Your task to perform on an android device: change the clock display to digital Image 0: 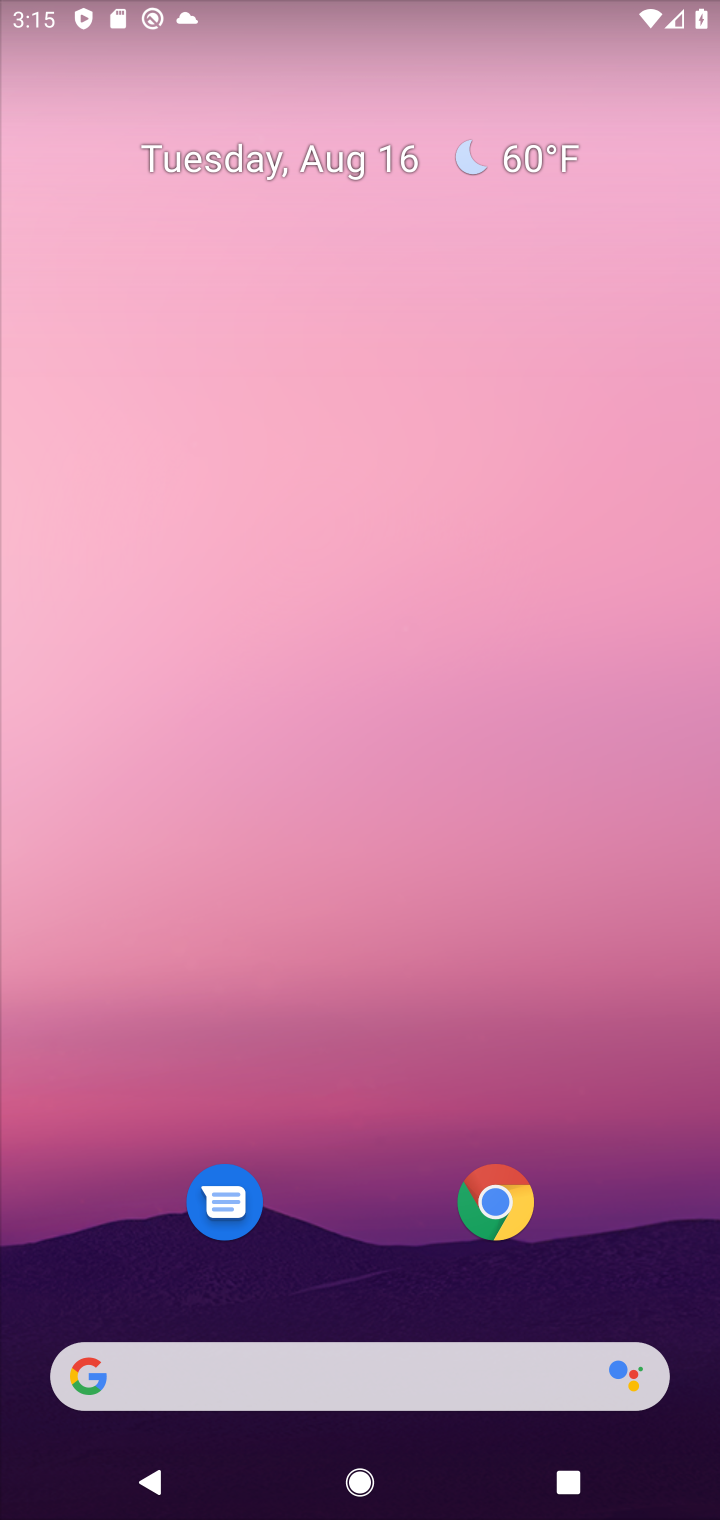
Step 0: press home button
Your task to perform on an android device: change the clock display to digital Image 1: 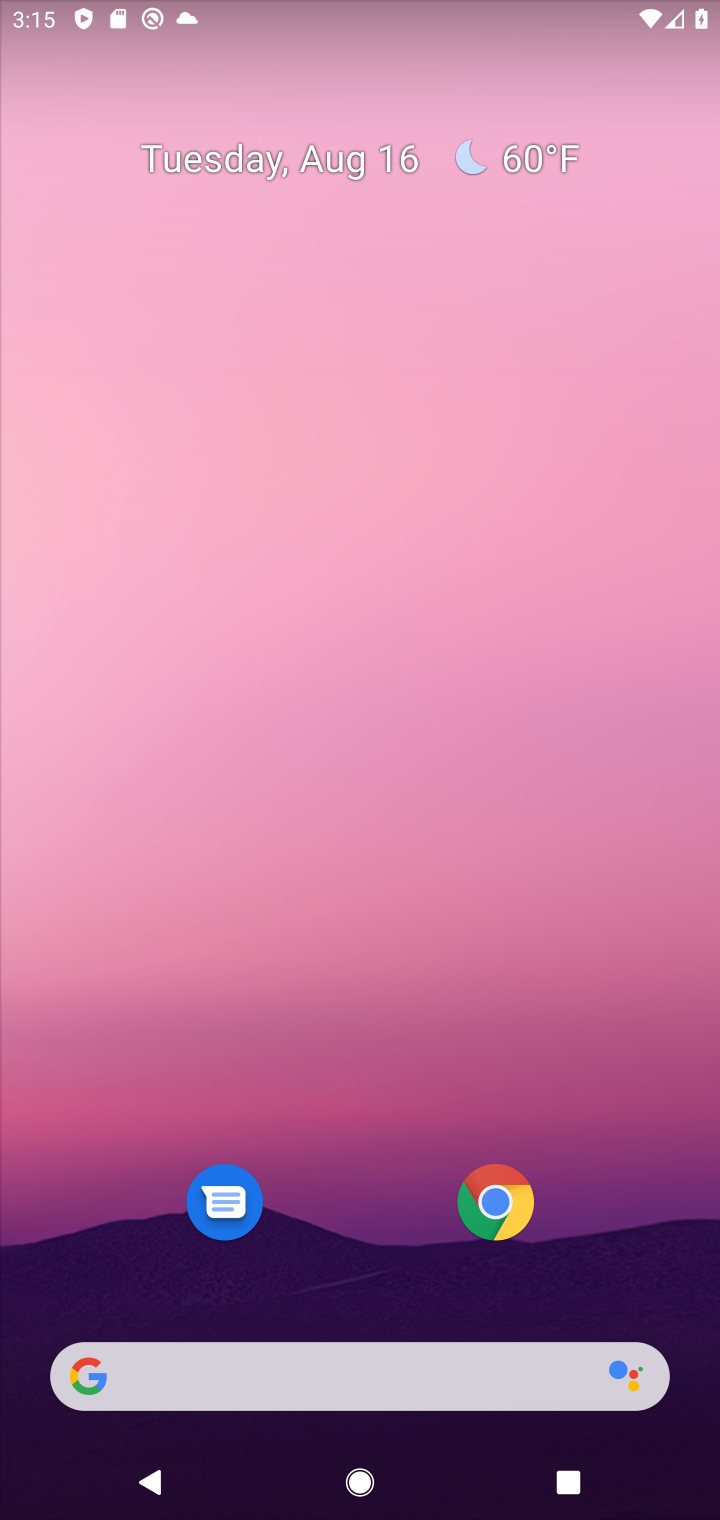
Step 1: drag from (369, 1159) to (417, 139)
Your task to perform on an android device: change the clock display to digital Image 2: 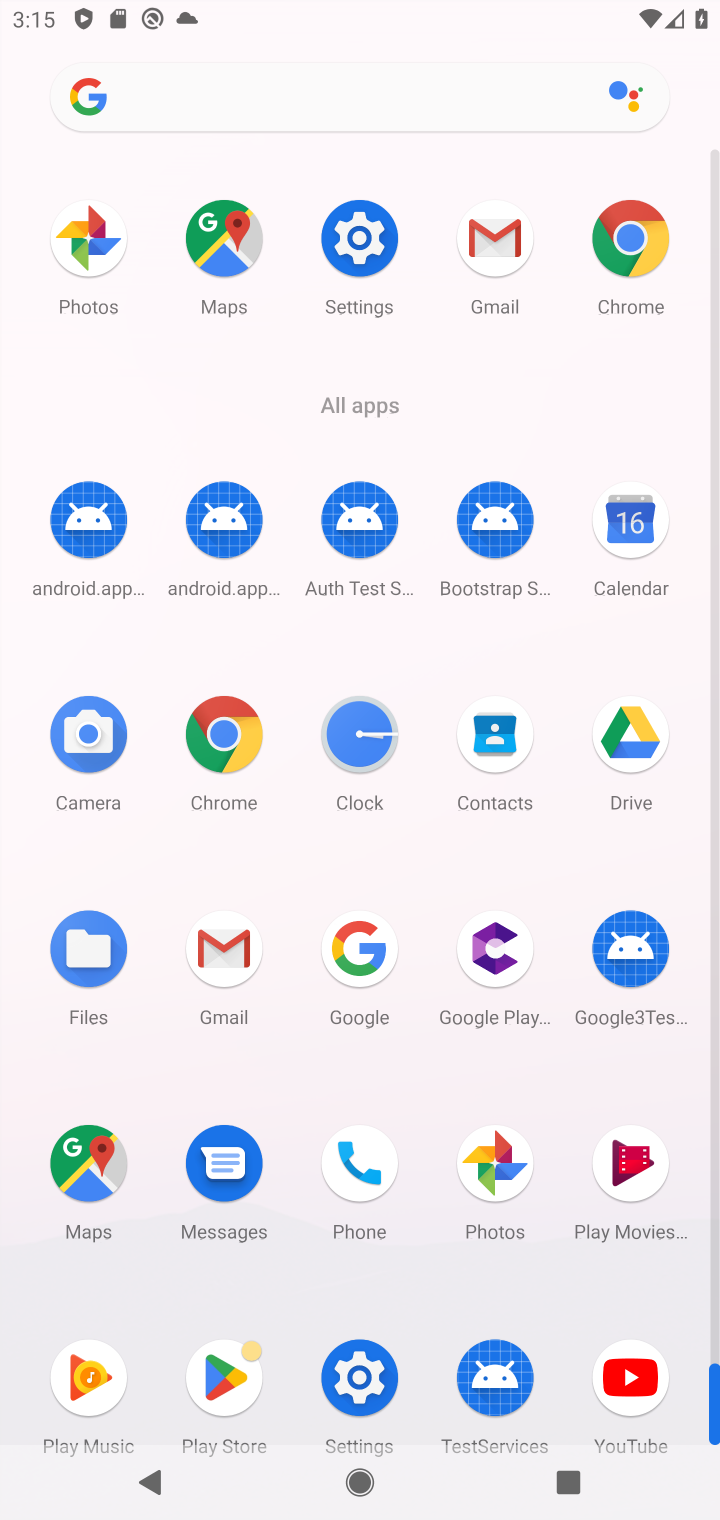
Step 2: click (374, 762)
Your task to perform on an android device: change the clock display to digital Image 3: 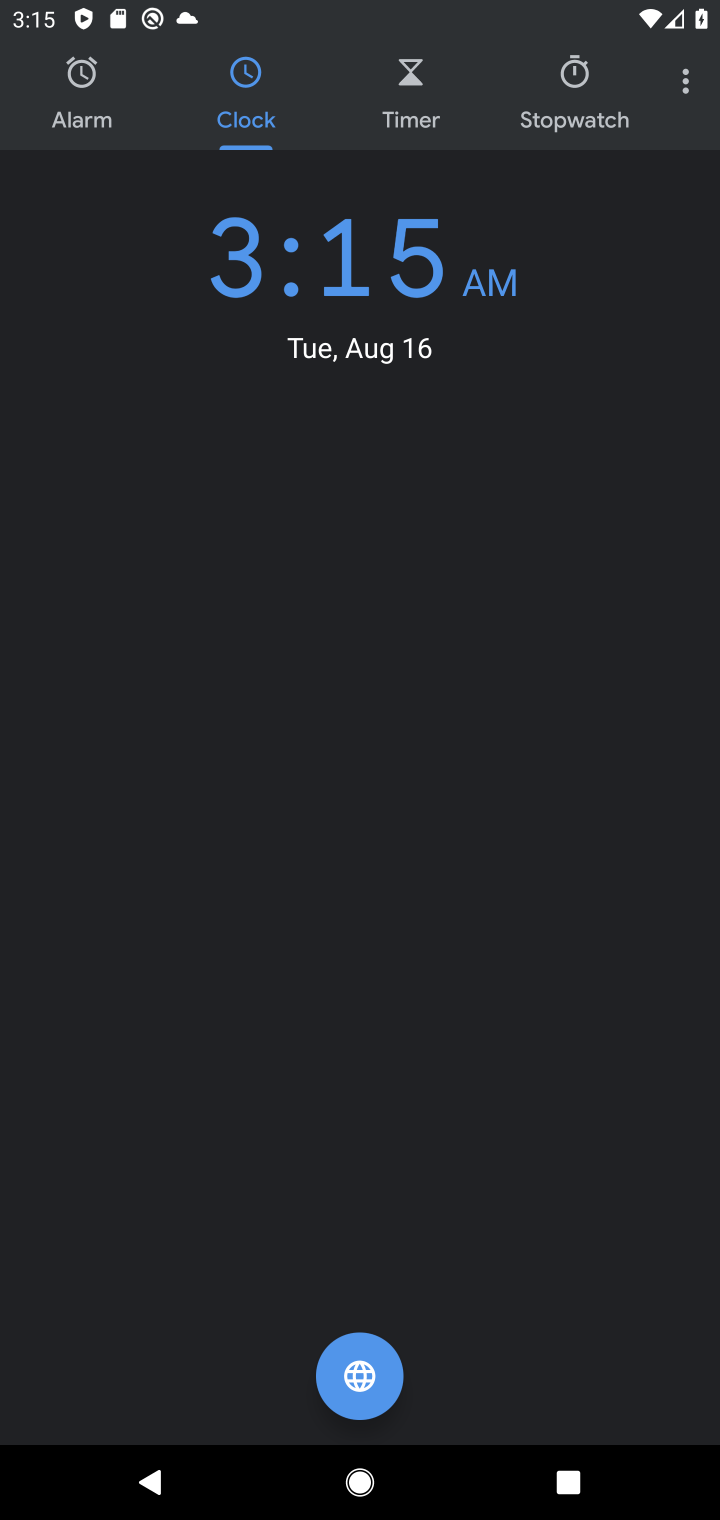
Step 3: click (684, 96)
Your task to perform on an android device: change the clock display to digital Image 4: 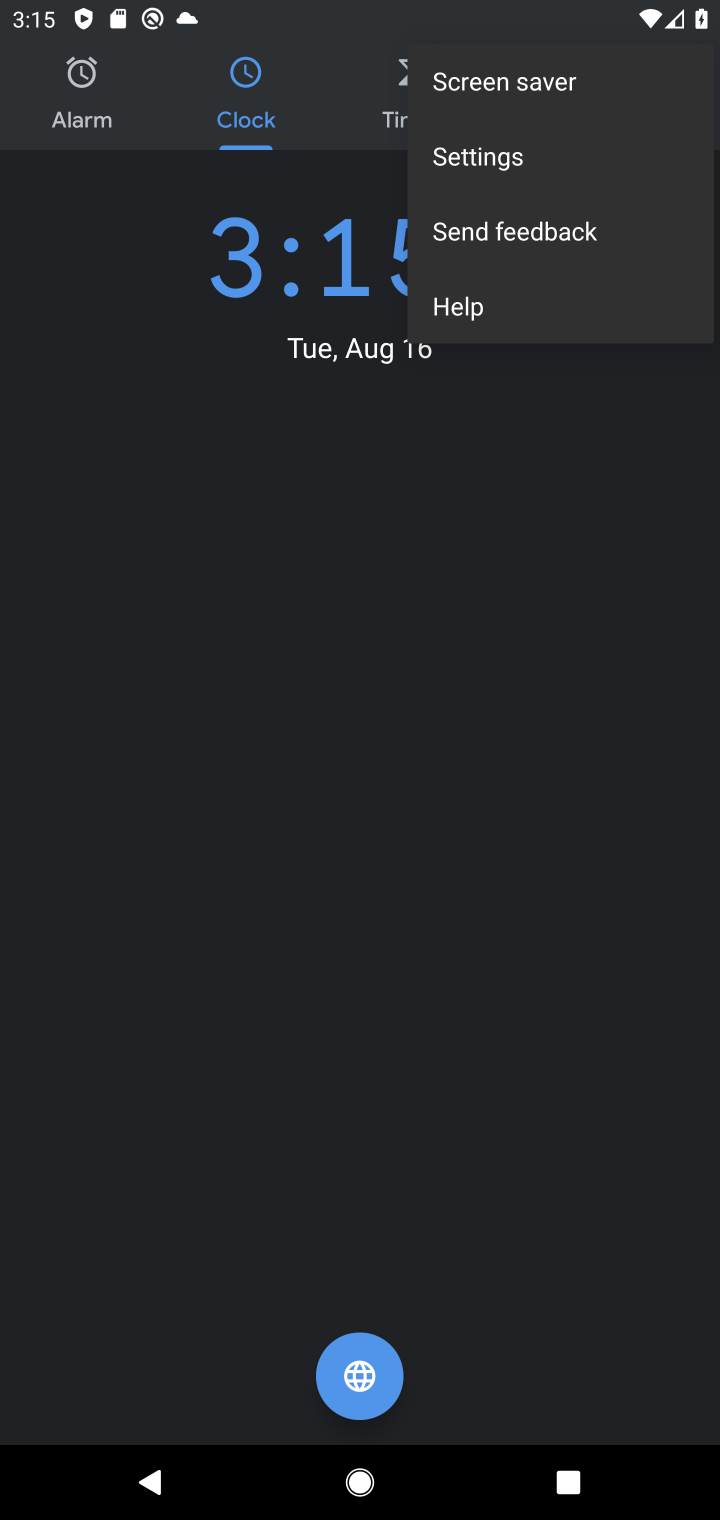
Step 4: click (534, 173)
Your task to perform on an android device: change the clock display to digital Image 5: 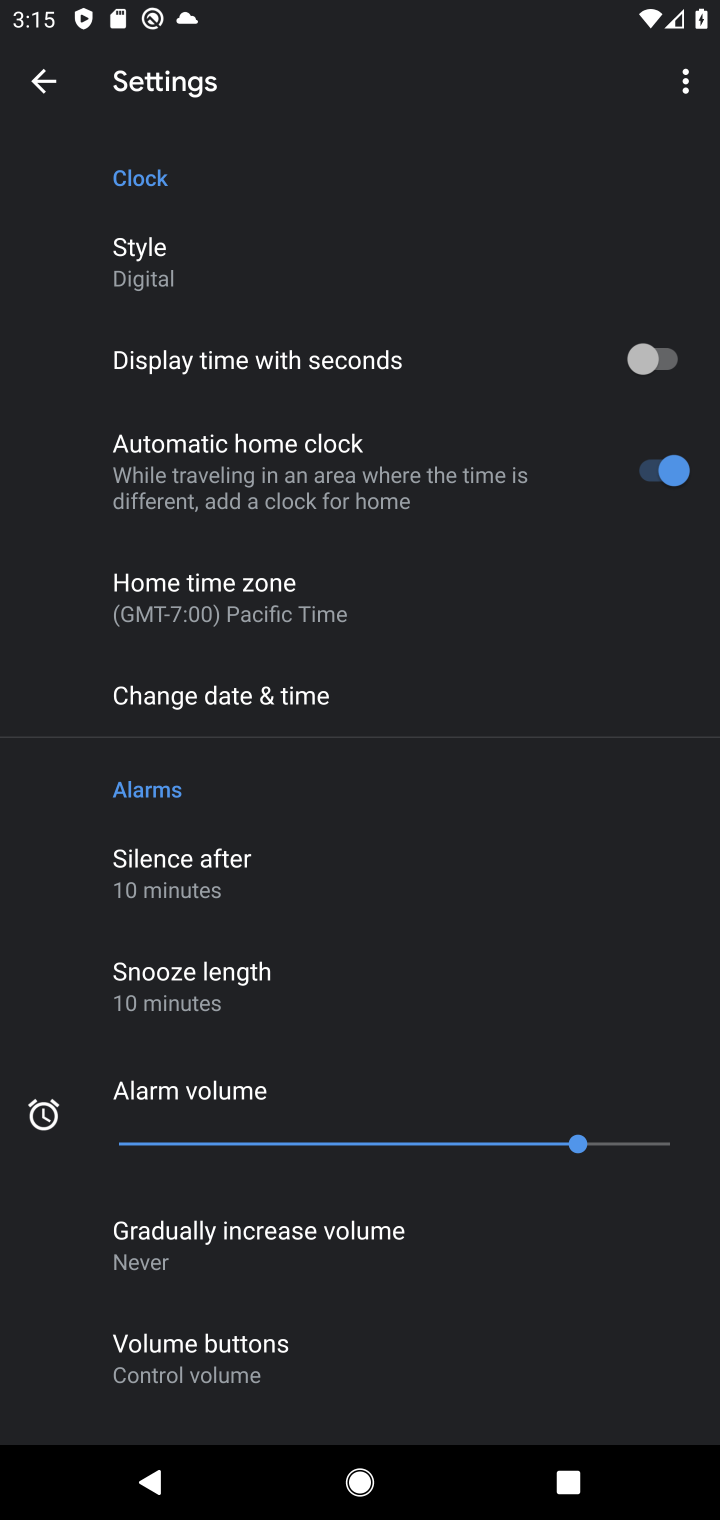
Step 5: task complete